Your task to perform on an android device: Open wifi settings Image 0: 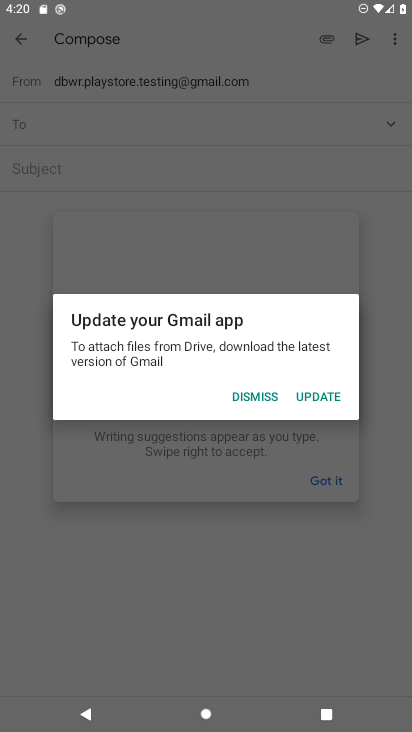
Step 0: press home button
Your task to perform on an android device: Open wifi settings Image 1: 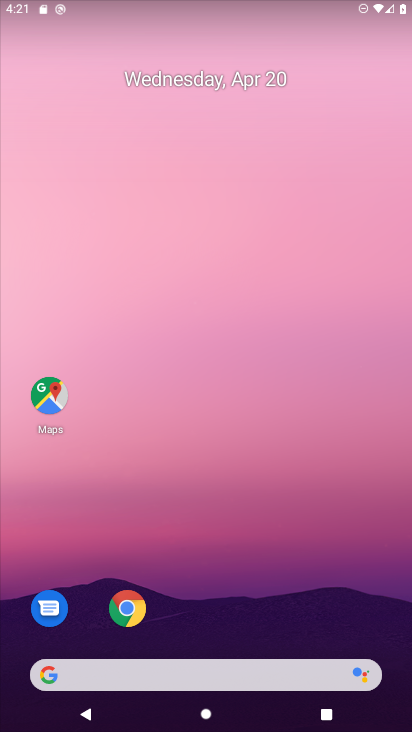
Step 1: drag from (294, 612) to (225, 128)
Your task to perform on an android device: Open wifi settings Image 2: 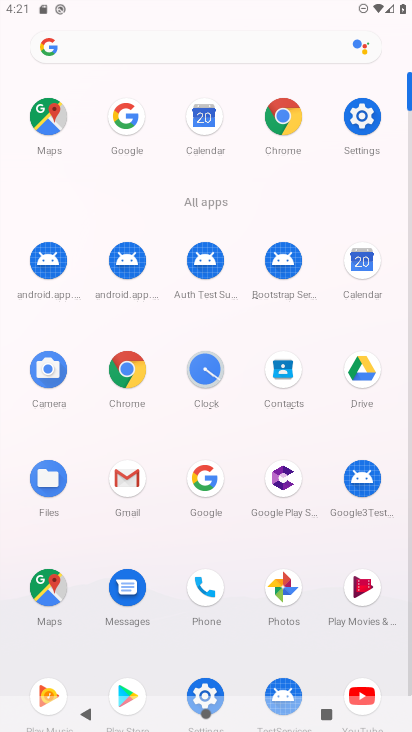
Step 2: click (359, 128)
Your task to perform on an android device: Open wifi settings Image 3: 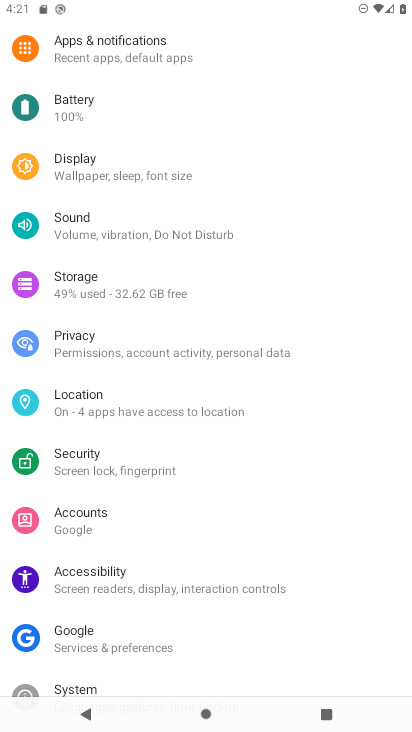
Step 3: drag from (246, 83) to (284, 210)
Your task to perform on an android device: Open wifi settings Image 4: 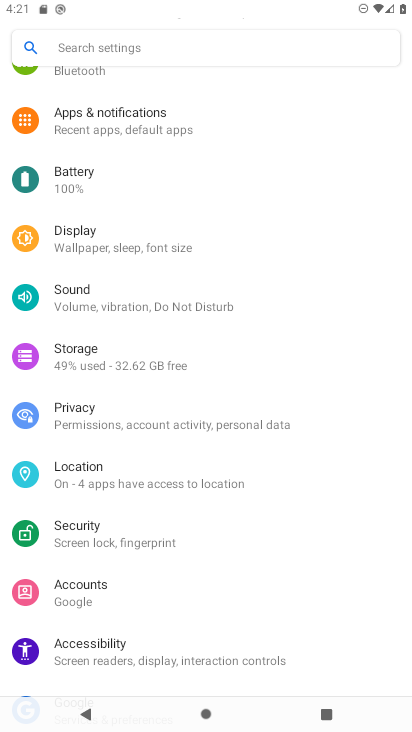
Step 4: drag from (264, 113) to (189, 675)
Your task to perform on an android device: Open wifi settings Image 5: 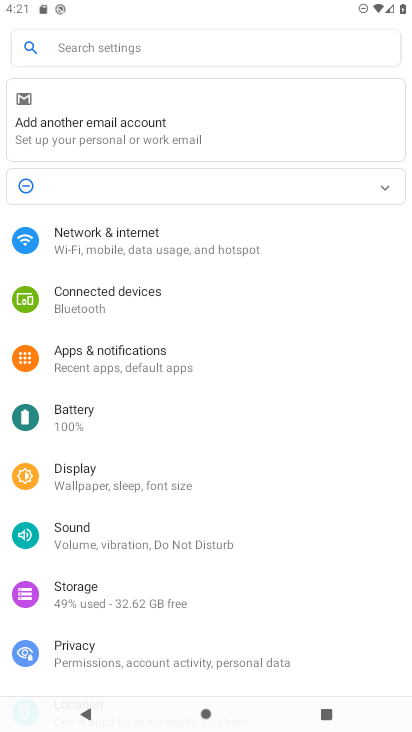
Step 5: click (153, 257)
Your task to perform on an android device: Open wifi settings Image 6: 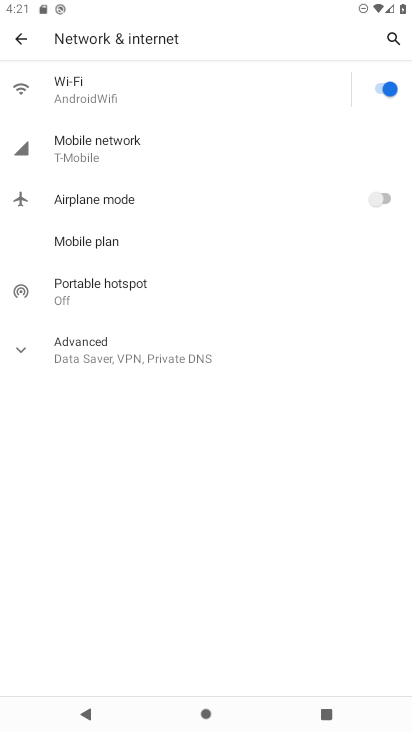
Step 6: click (168, 99)
Your task to perform on an android device: Open wifi settings Image 7: 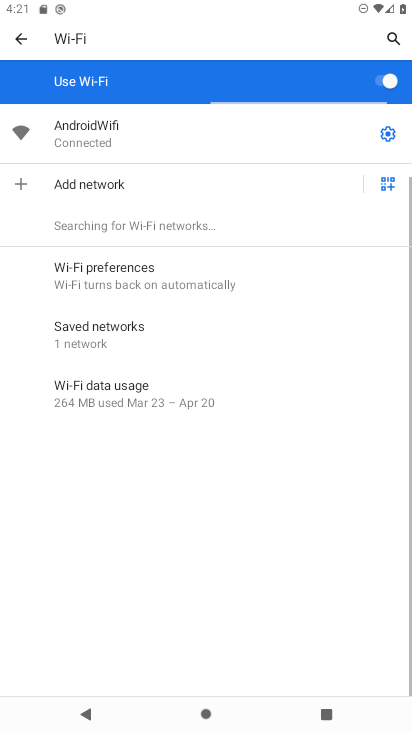
Step 7: task complete